Your task to perform on an android device: Open sound settings Image 0: 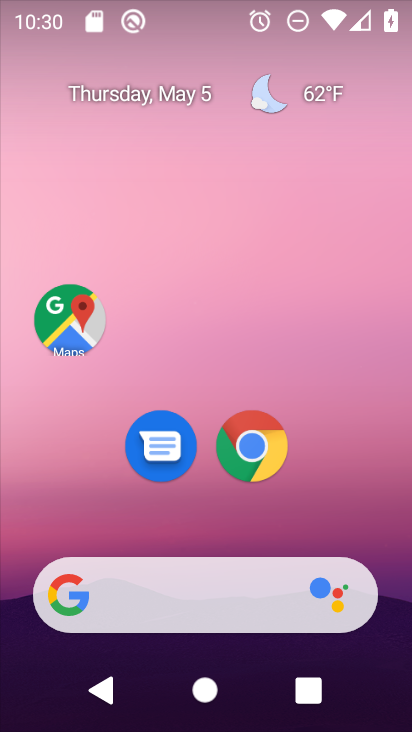
Step 0: drag from (331, 628) to (289, 290)
Your task to perform on an android device: Open sound settings Image 1: 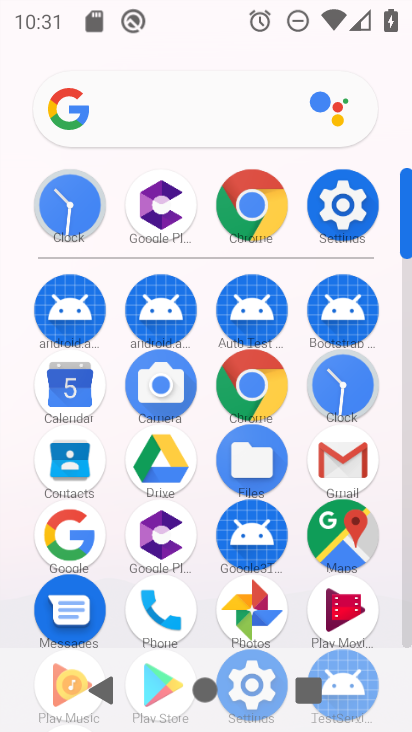
Step 1: click (351, 220)
Your task to perform on an android device: Open sound settings Image 2: 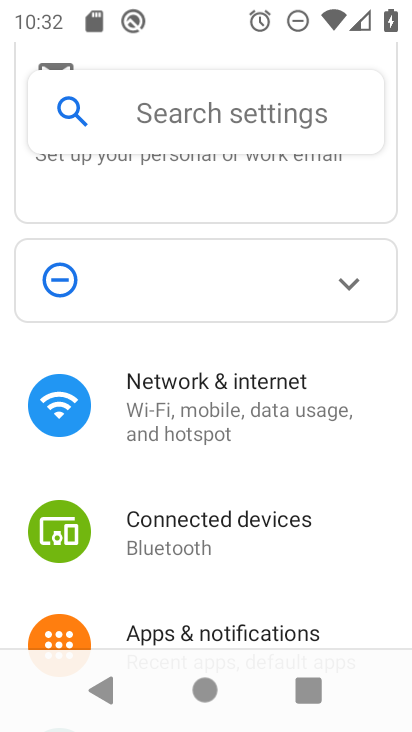
Step 2: click (189, 109)
Your task to perform on an android device: Open sound settings Image 3: 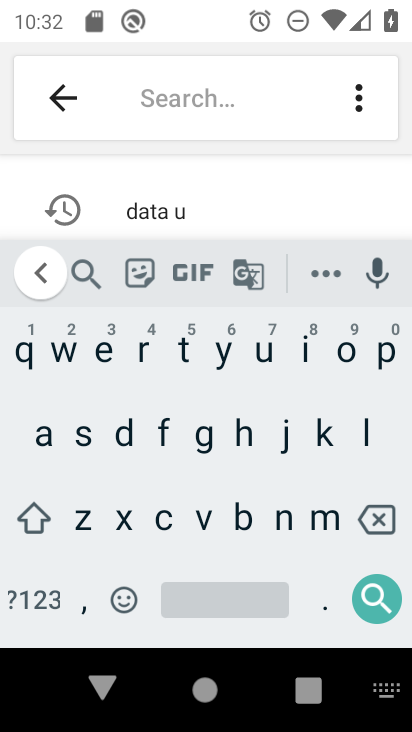
Step 3: click (83, 433)
Your task to perform on an android device: Open sound settings Image 4: 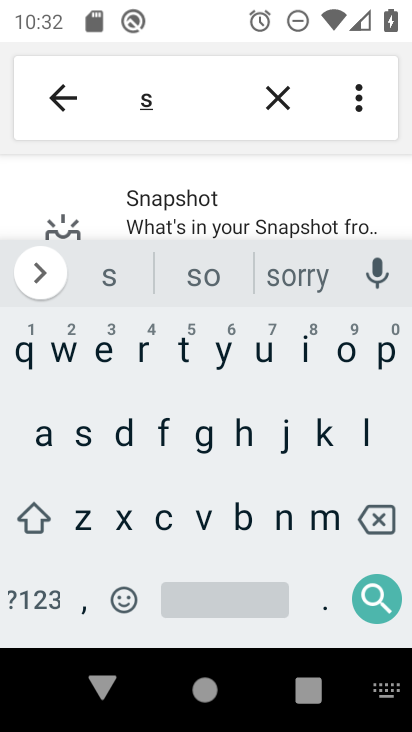
Step 4: click (348, 352)
Your task to perform on an android device: Open sound settings Image 5: 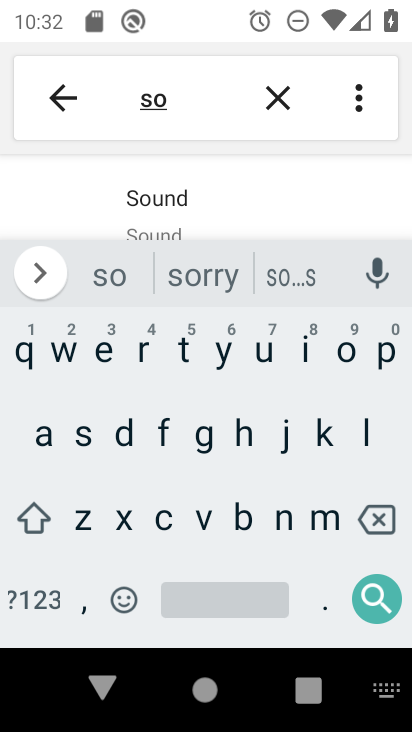
Step 5: click (174, 203)
Your task to perform on an android device: Open sound settings Image 6: 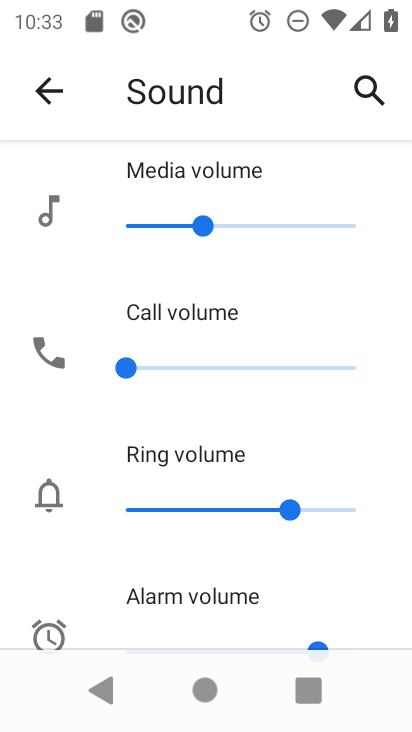
Step 6: task complete